Your task to perform on an android device: visit the assistant section in the google photos Image 0: 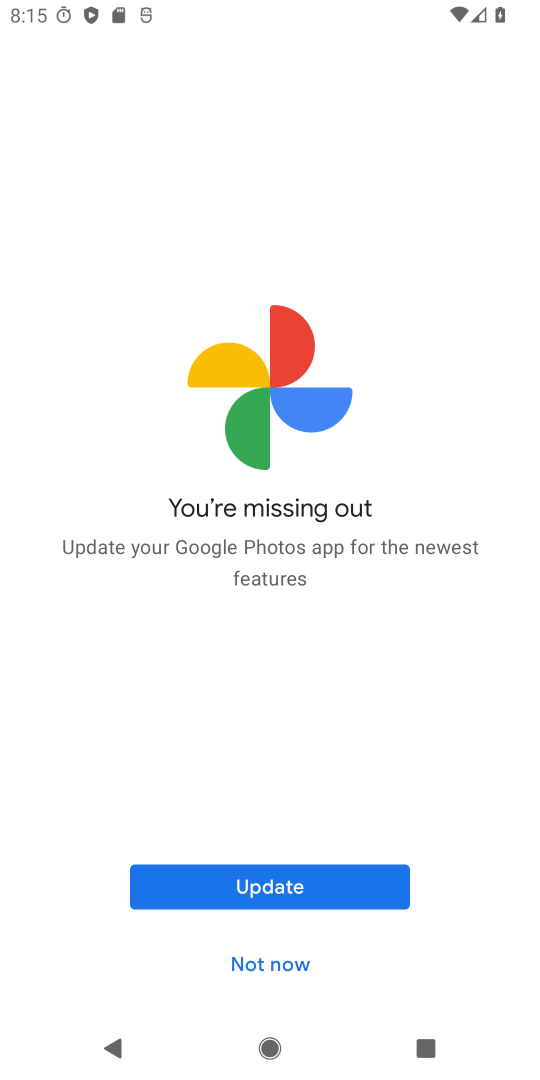
Step 0: press home button
Your task to perform on an android device: visit the assistant section in the google photos Image 1: 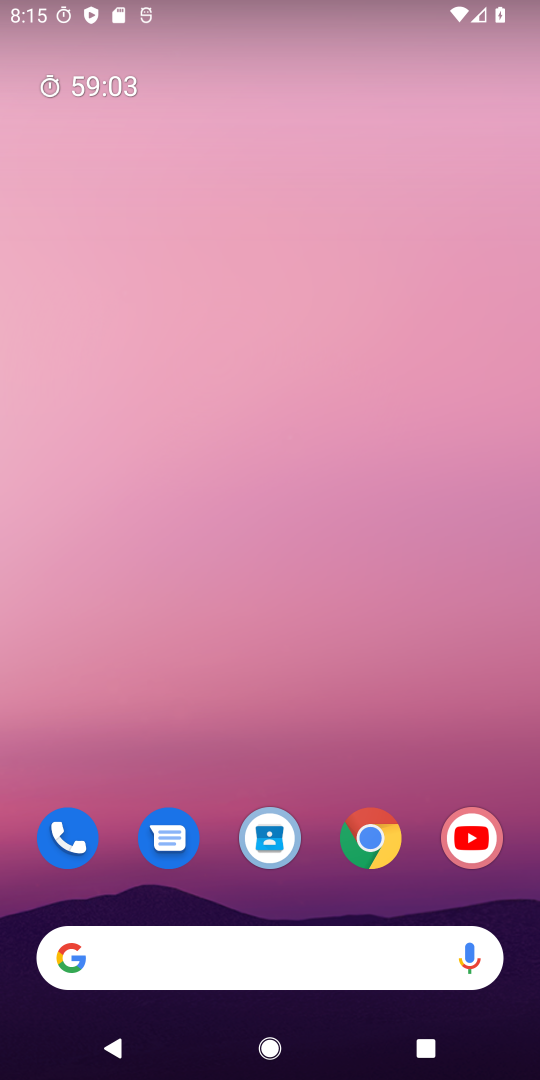
Step 1: drag from (295, 850) to (30, 487)
Your task to perform on an android device: visit the assistant section in the google photos Image 2: 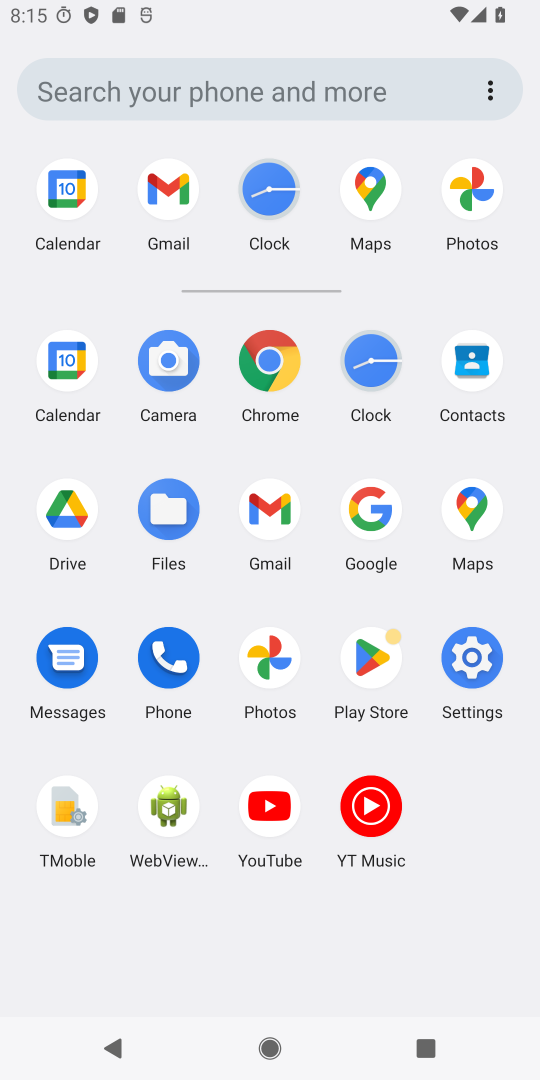
Step 2: click (263, 672)
Your task to perform on an android device: visit the assistant section in the google photos Image 3: 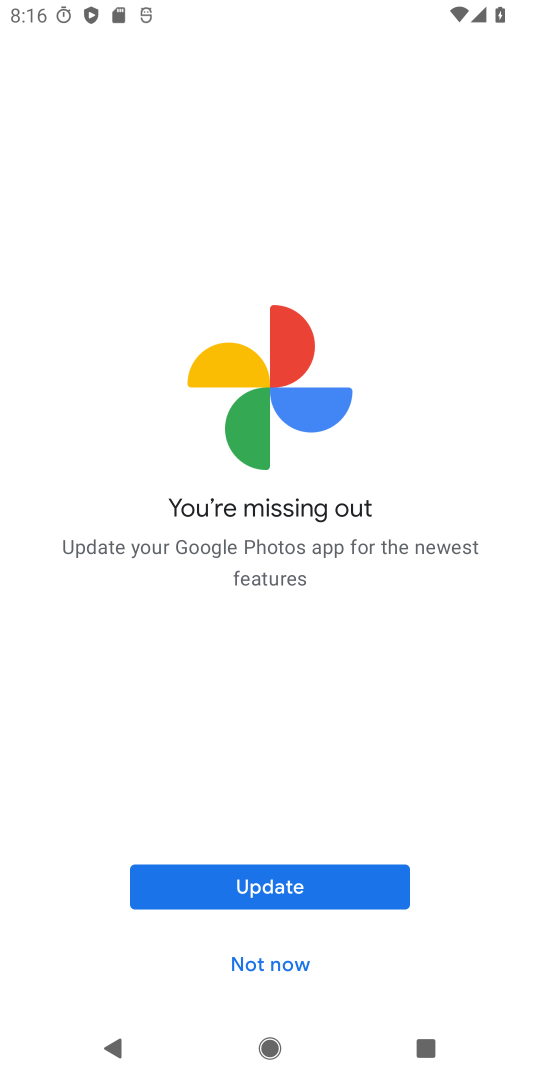
Step 3: click (198, 896)
Your task to perform on an android device: visit the assistant section in the google photos Image 4: 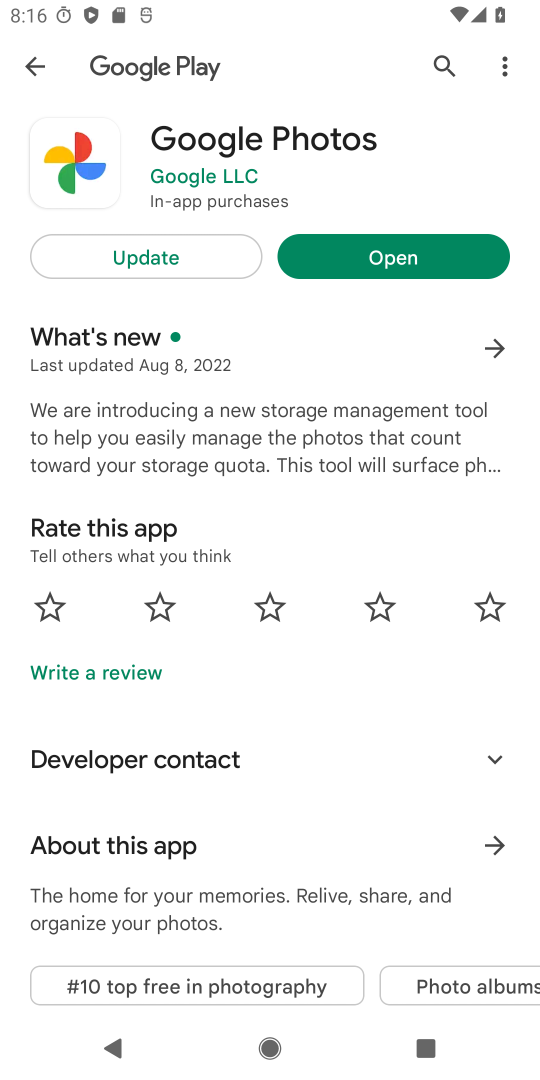
Step 4: click (143, 247)
Your task to perform on an android device: visit the assistant section in the google photos Image 5: 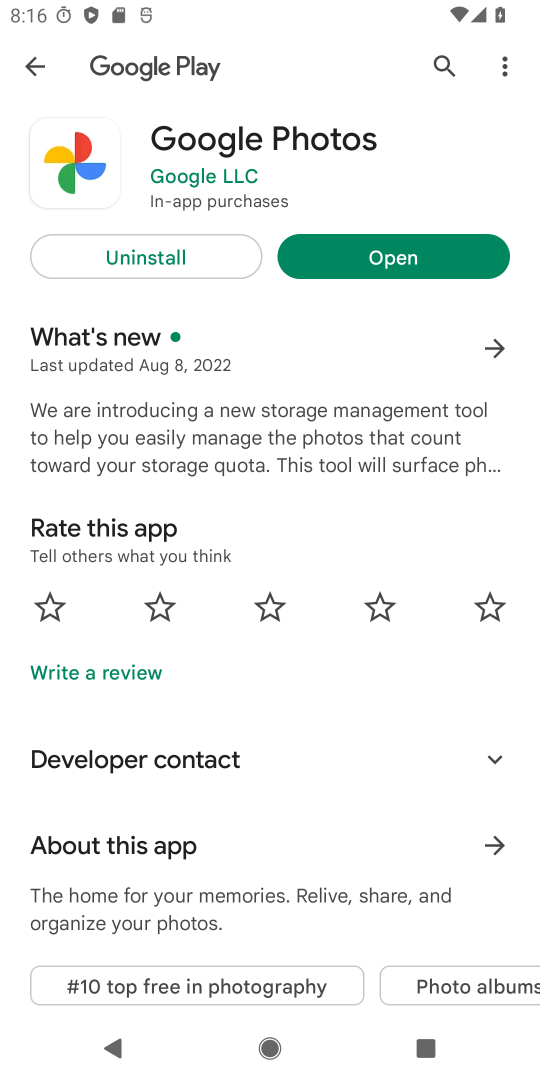
Step 5: click (417, 255)
Your task to perform on an android device: visit the assistant section in the google photos Image 6: 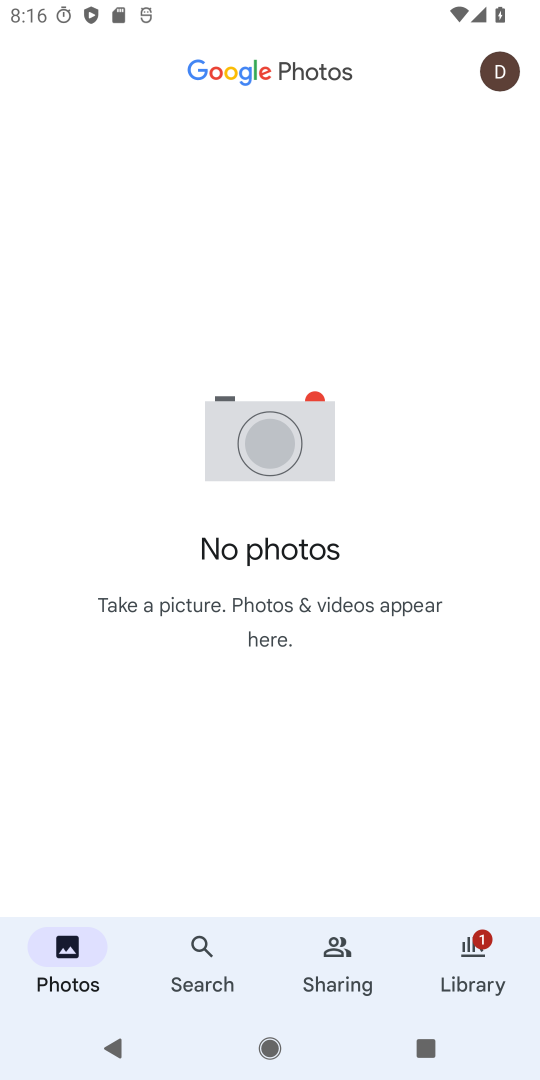
Step 6: task complete